Your task to perform on an android device: toggle sleep mode Image 0: 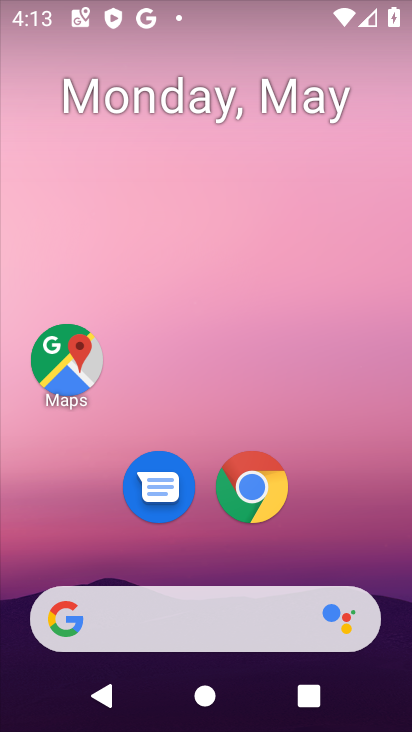
Step 0: drag from (386, 532) to (379, 20)
Your task to perform on an android device: toggle sleep mode Image 1: 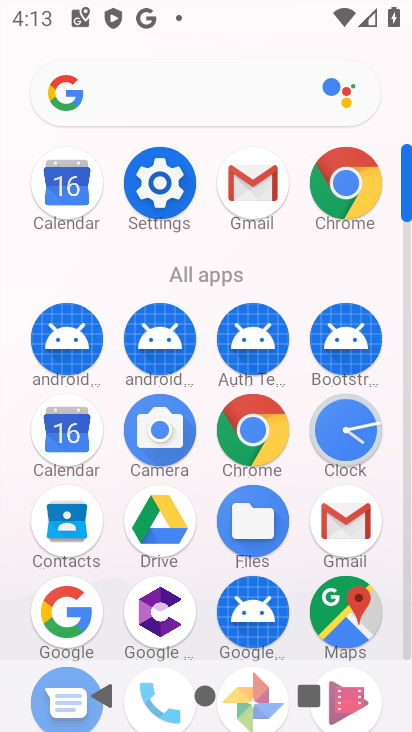
Step 1: click (156, 183)
Your task to perform on an android device: toggle sleep mode Image 2: 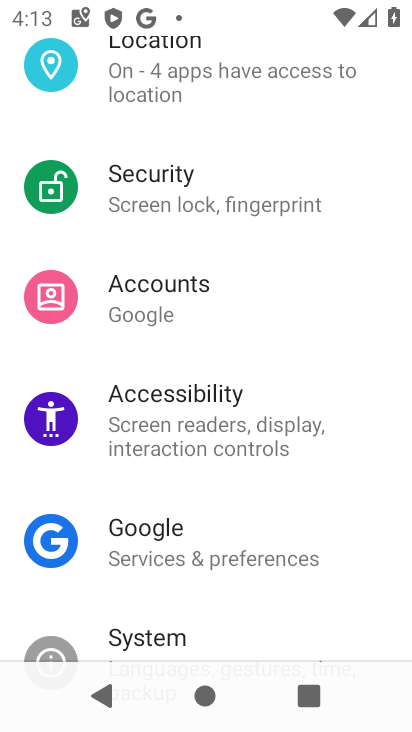
Step 2: drag from (321, 342) to (356, 565)
Your task to perform on an android device: toggle sleep mode Image 3: 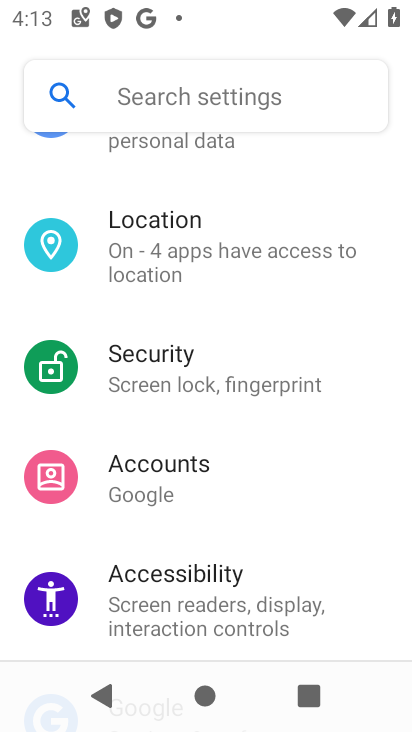
Step 3: drag from (290, 290) to (319, 596)
Your task to perform on an android device: toggle sleep mode Image 4: 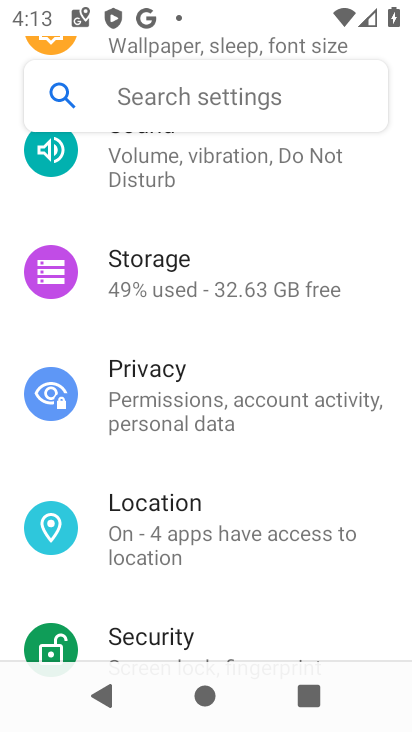
Step 4: drag from (241, 340) to (270, 614)
Your task to perform on an android device: toggle sleep mode Image 5: 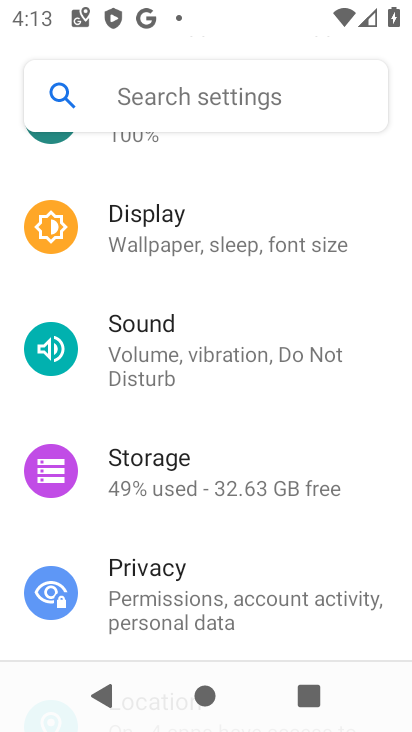
Step 5: click (141, 253)
Your task to perform on an android device: toggle sleep mode Image 6: 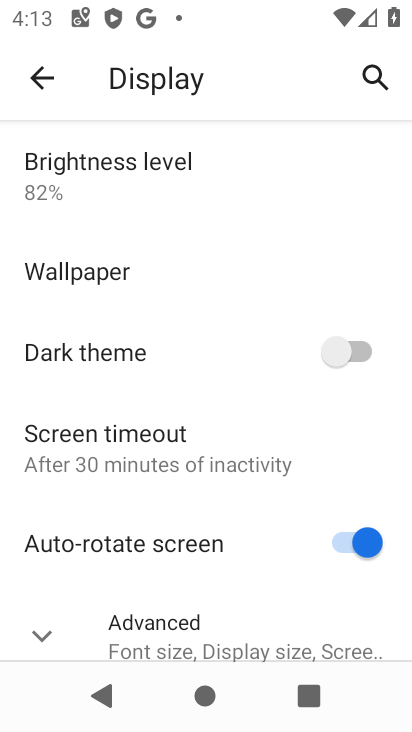
Step 6: drag from (143, 511) to (138, 167)
Your task to perform on an android device: toggle sleep mode Image 7: 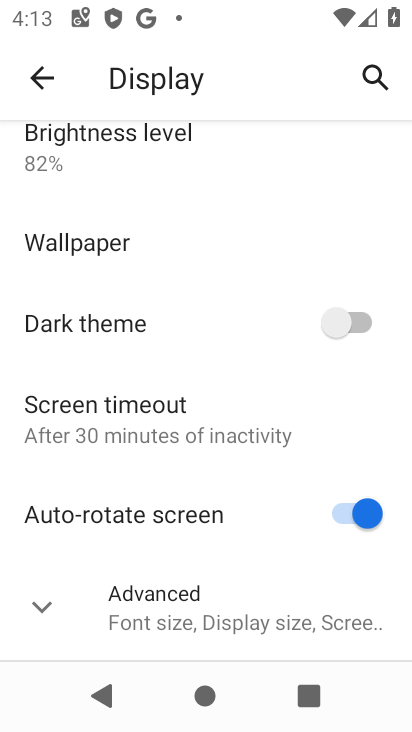
Step 7: click (36, 612)
Your task to perform on an android device: toggle sleep mode Image 8: 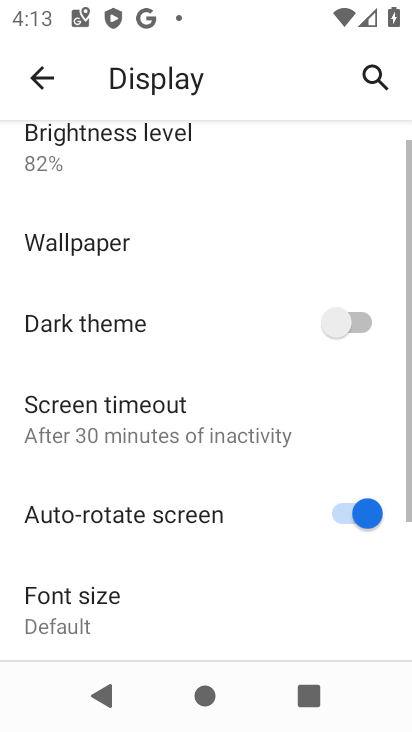
Step 8: task complete